Your task to perform on an android device: turn off picture-in-picture Image 0: 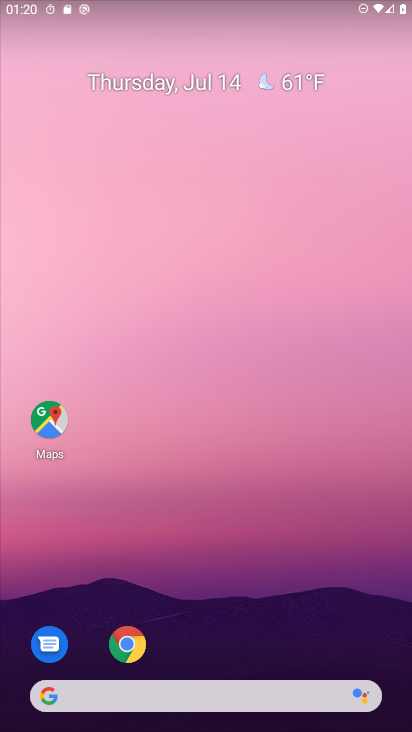
Step 0: click (126, 651)
Your task to perform on an android device: turn off picture-in-picture Image 1: 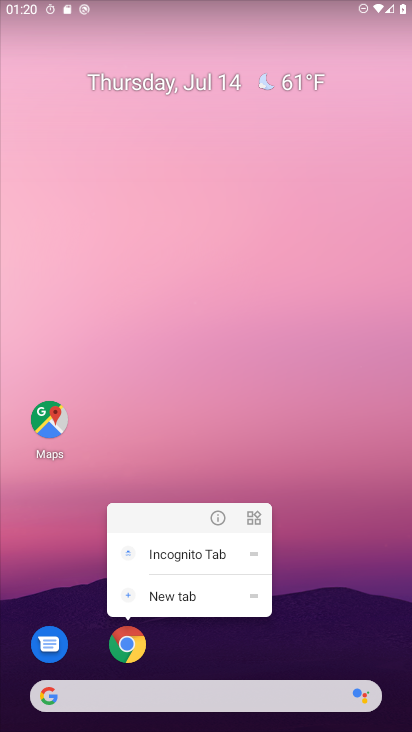
Step 1: click (216, 523)
Your task to perform on an android device: turn off picture-in-picture Image 2: 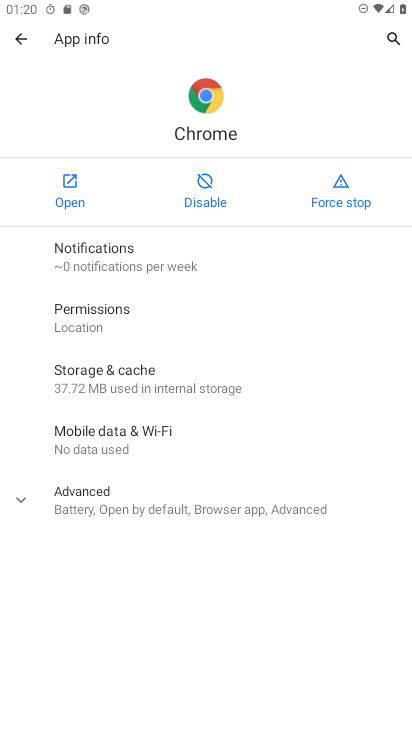
Step 2: click (114, 497)
Your task to perform on an android device: turn off picture-in-picture Image 3: 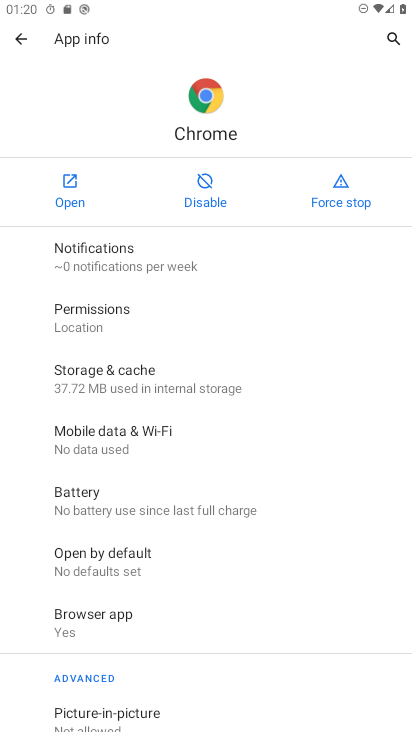
Step 3: drag from (246, 687) to (228, 241)
Your task to perform on an android device: turn off picture-in-picture Image 4: 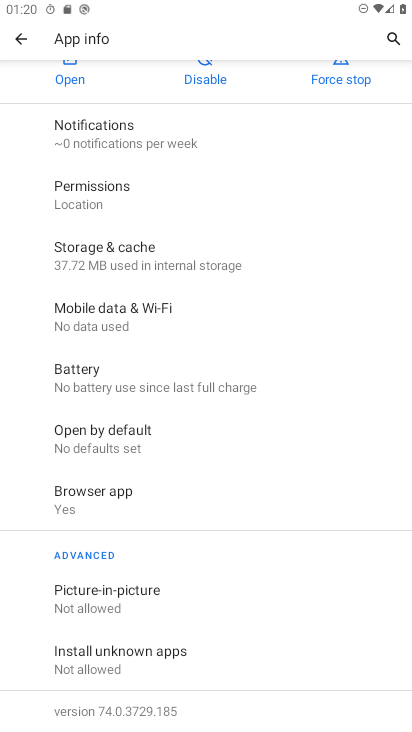
Step 4: click (133, 604)
Your task to perform on an android device: turn off picture-in-picture Image 5: 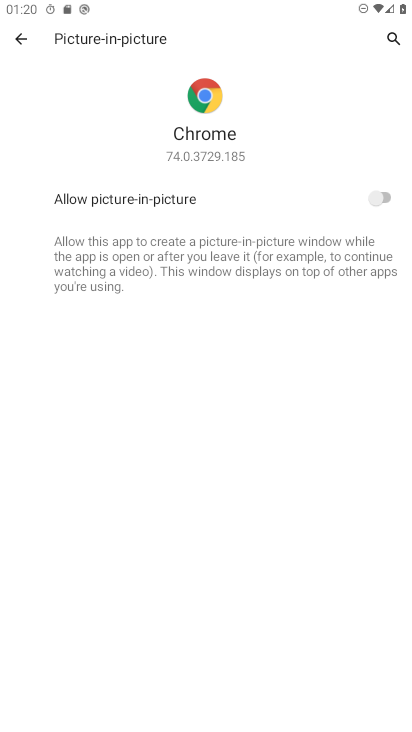
Step 5: task complete